Your task to perform on an android device: Open display settings Image 0: 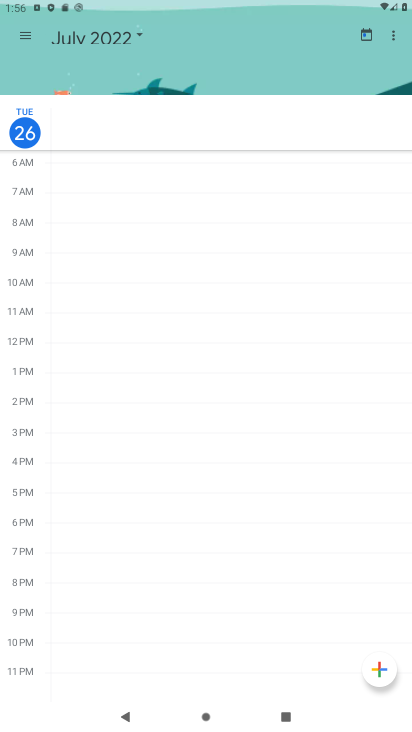
Step 0: press home button
Your task to perform on an android device: Open display settings Image 1: 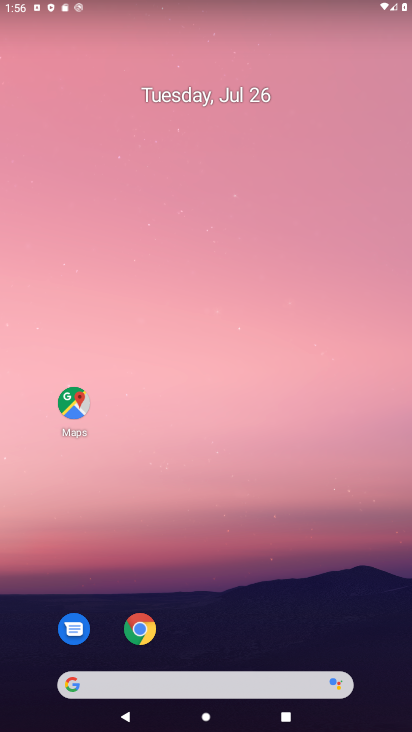
Step 1: drag from (397, 663) to (336, 149)
Your task to perform on an android device: Open display settings Image 2: 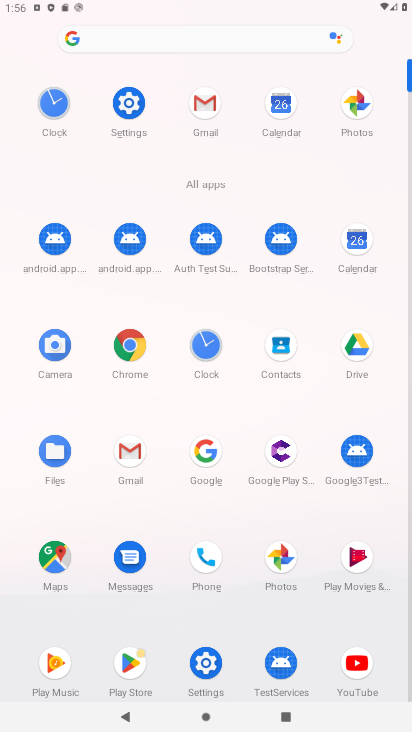
Step 2: click (206, 664)
Your task to perform on an android device: Open display settings Image 3: 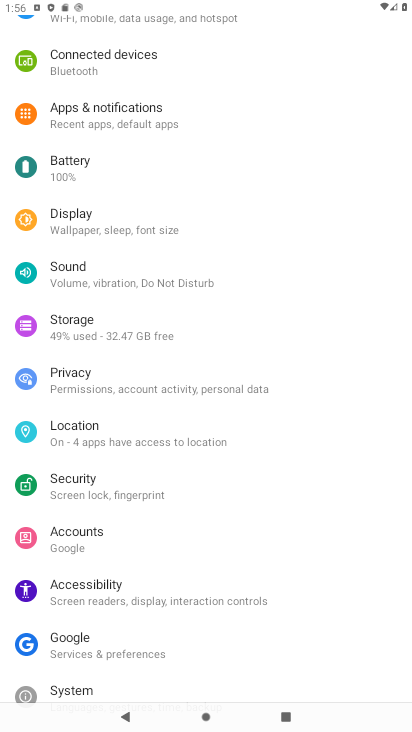
Step 3: click (66, 217)
Your task to perform on an android device: Open display settings Image 4: 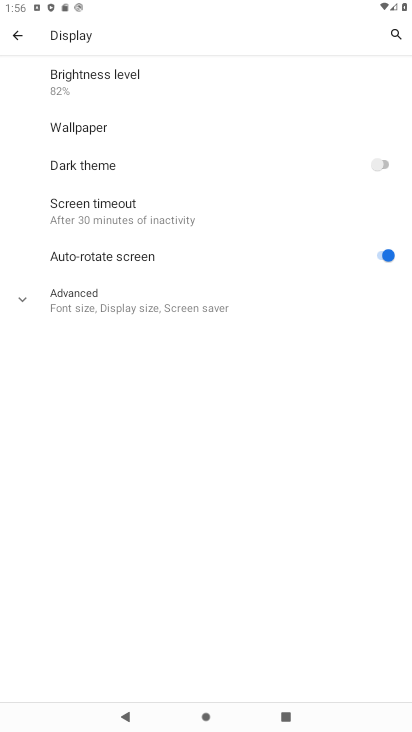
Step 4: click (21, 298)
Your task to perform on an android device: Open display settings Image 5: 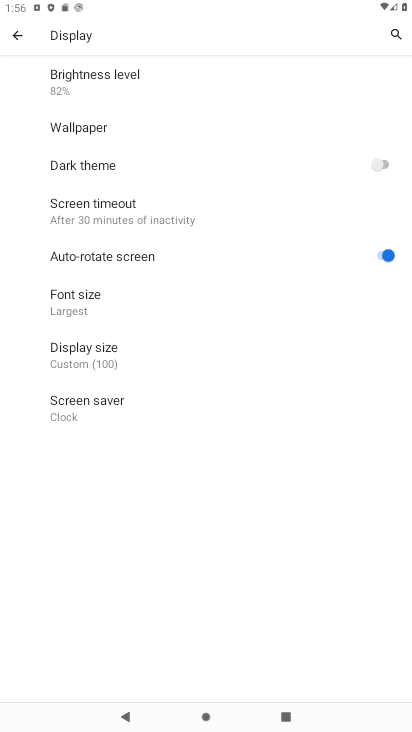
Step 5: task complete